Your task to perform on an android device: stop showing notifications on the lock screen Image 0: 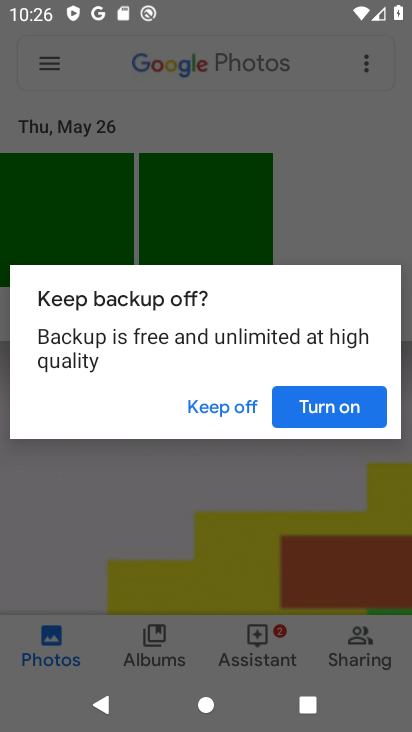
Step 0: press home button
Your task to perform on an android device: stop showing notifications on the lock screen Image 1: 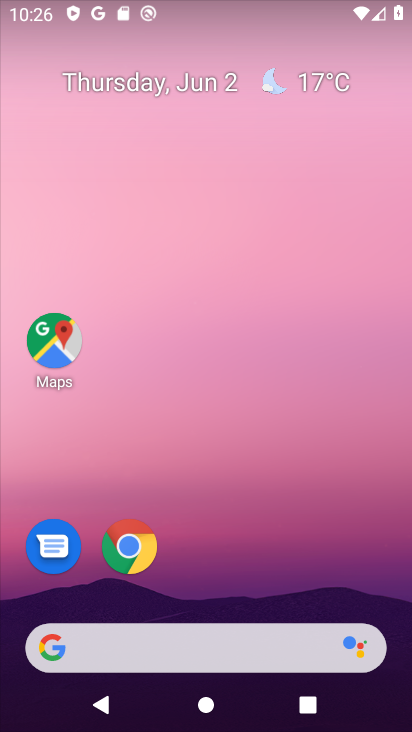
Step 1: drag from (350, 523) to (274, 5)
Your task to perform on an android device: stop showing notifications on the lock screen Image 2: 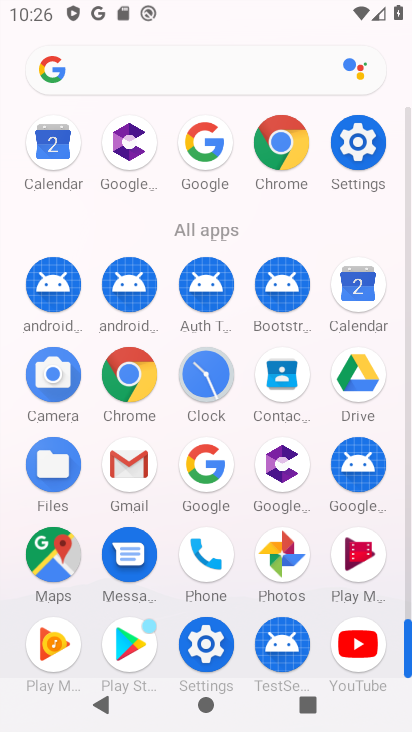
Step 2: click (207, 642)
Your task to perform on an android device: stop showing notifications on the lock screen Image 3: 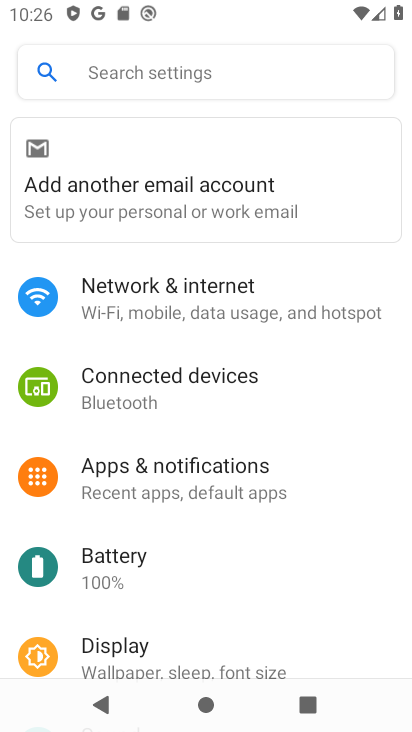
Step 3: click (208, 483)
Your task to perform on an android device: stop showing notifications on the lock screen Image 4: 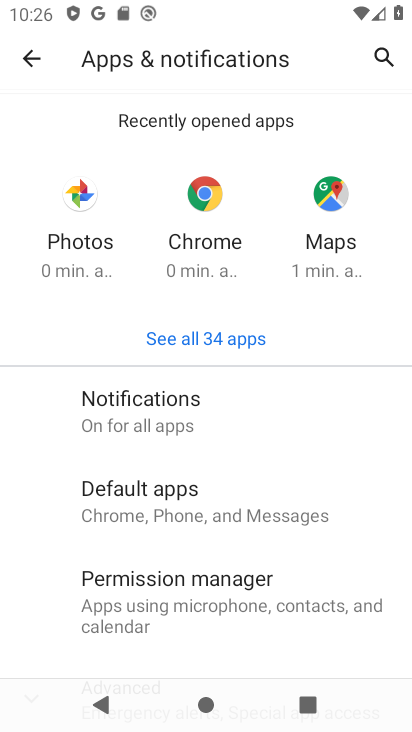
Step 4: click (193, 408)
Your task to perform on an android device: stop showing notifications on the lock screen Image 5: 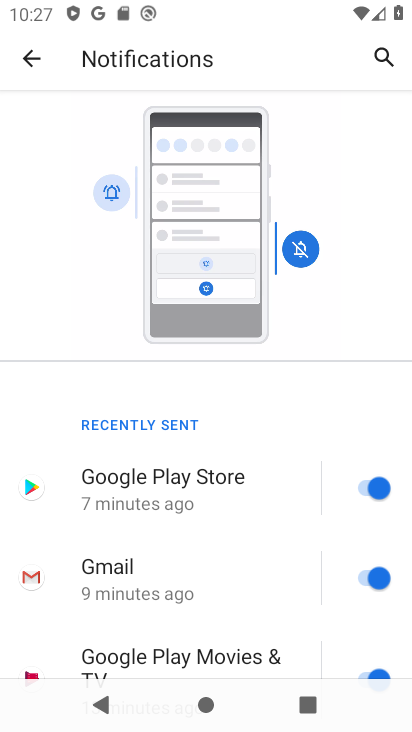
Step 5: drag from (245, 556) to (246, 160)
Your task to perform on an android device: stop showing notifications on the lock screen Image 6: 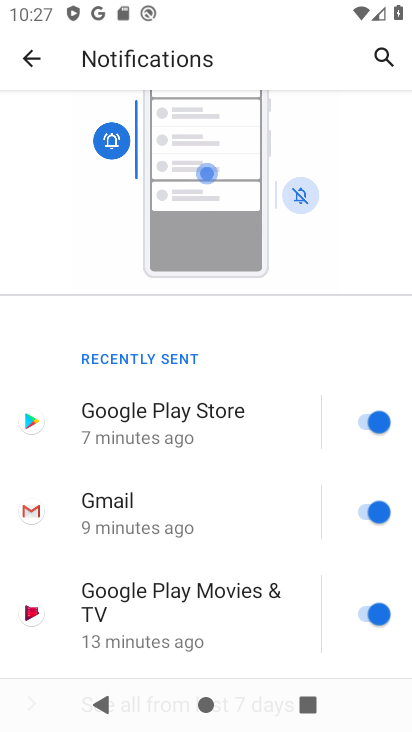
Step 6: drag from (213, 341) to (208, 136)
Your task to perform on an android device: stop showing notifications on the lock screen Image 7: 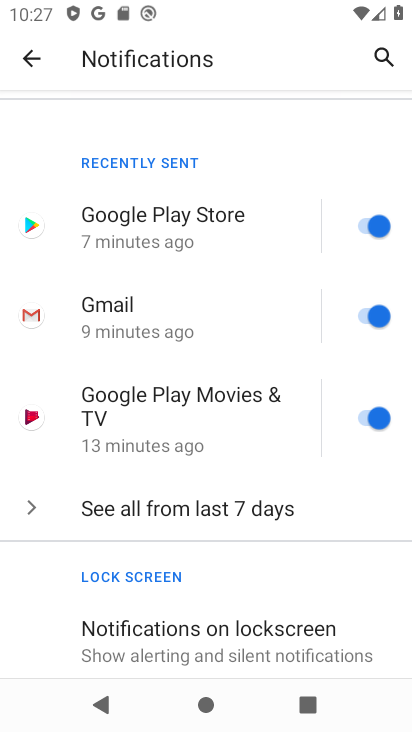
Step 7: drag from (234, 532) to (212, 146)
Your task to perform on an android device: stop showing notifications on the lock screen Image 8: 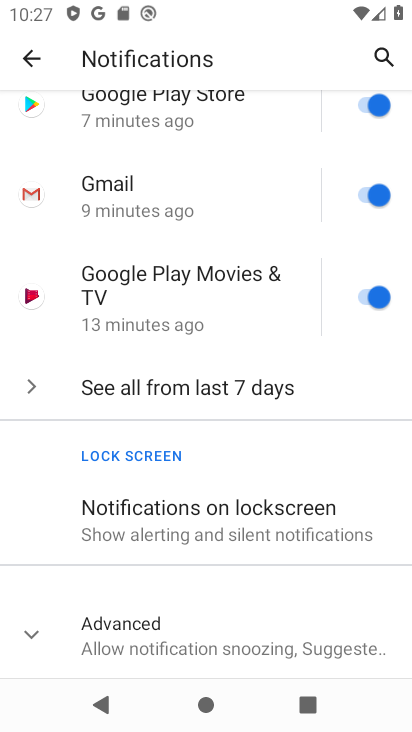
Step 8: click (229, 509)
Your task to perform on an android device: stop showing notifications on the lock screen Image 9: 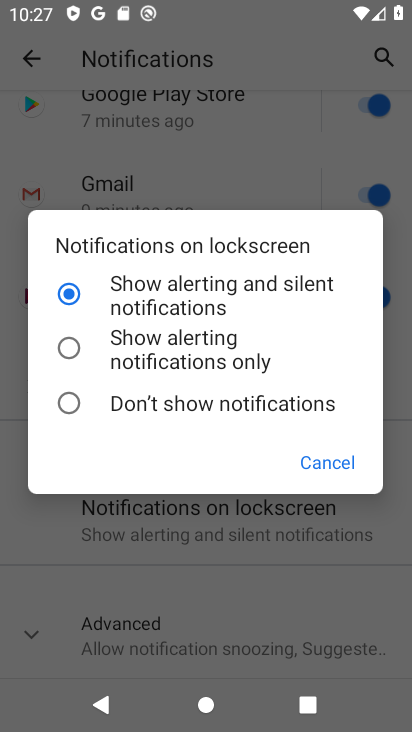
Step 9: click (194, 405)
Your task to perform on an android device: stop showing notifications on the lock screen Image 10: 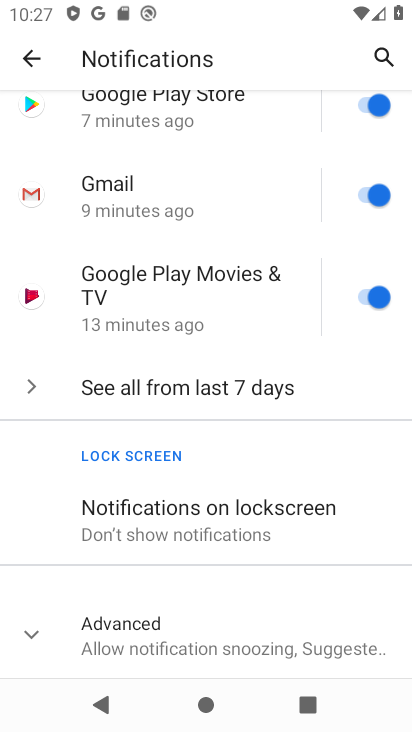
Step 10: task complete